Your task to perform on an android device: Open Chrome and go to the settings page Image 0: 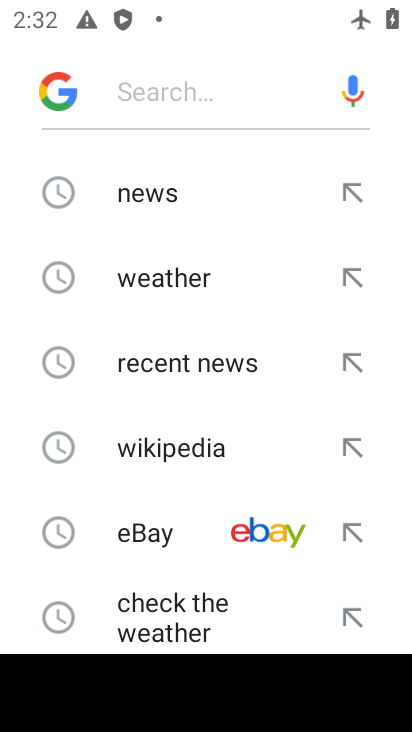
Step 0: press home button
Your task to perform on an android device: Open Chrome and go to the settings page Image 1: 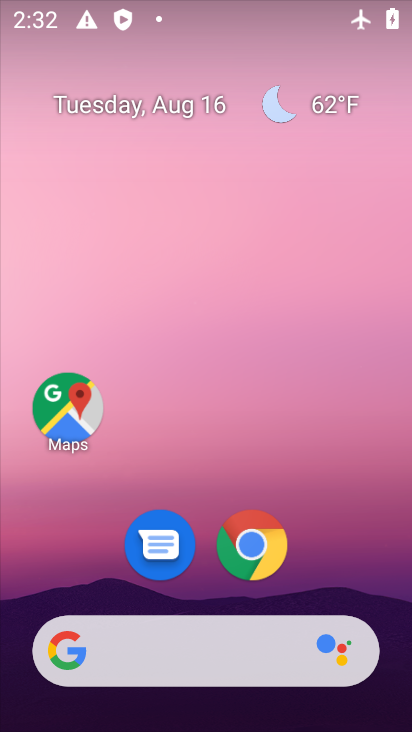
Step 1: click (246, 553)
Your task to perform on an android device: Open Chrome and go to the settings page Image 2: 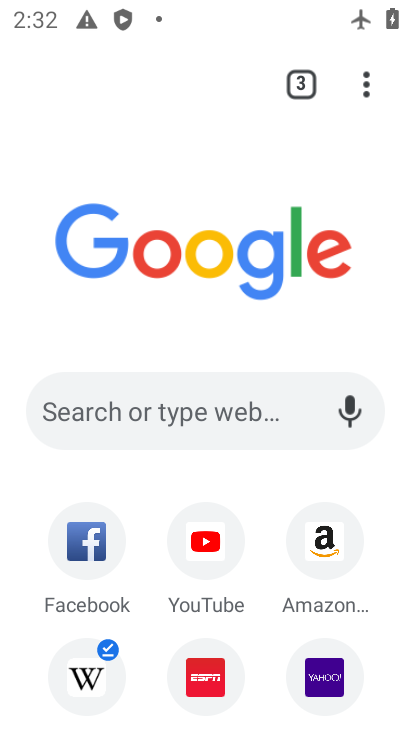
Step 2: click (368, 90)
Your task to perform on an android device: Open Chrome and go to the settings page Image 3: 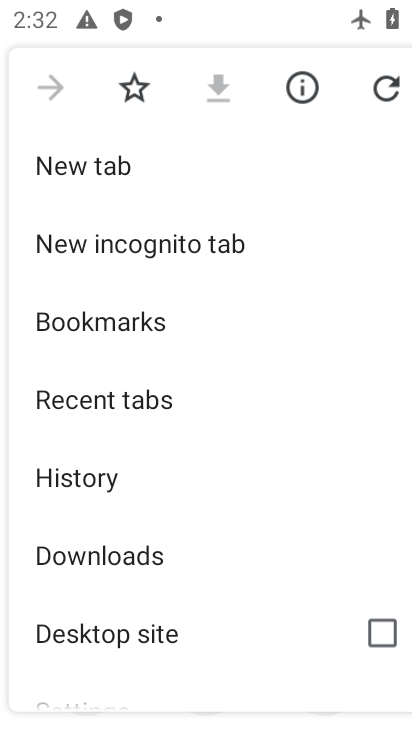
Step 3: drag from (163, 697) to (122, 227)
Your task to perform on an android device: Open Chrome and go to the settings page Image 4: 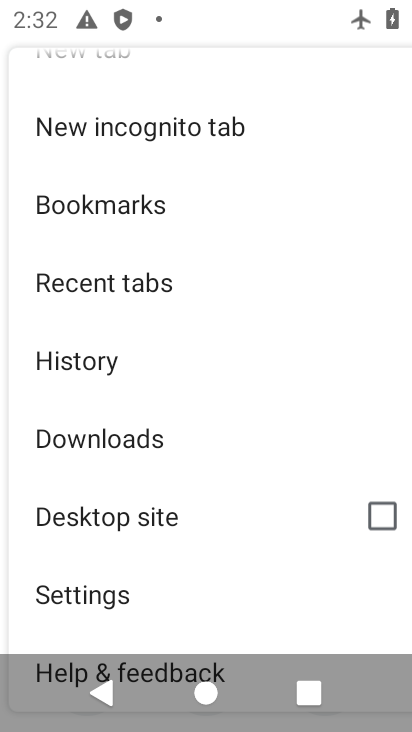
Step 4: click (107, 594)
Your task to perform on an android device: Open Chrome and go to the settings page Image 5: 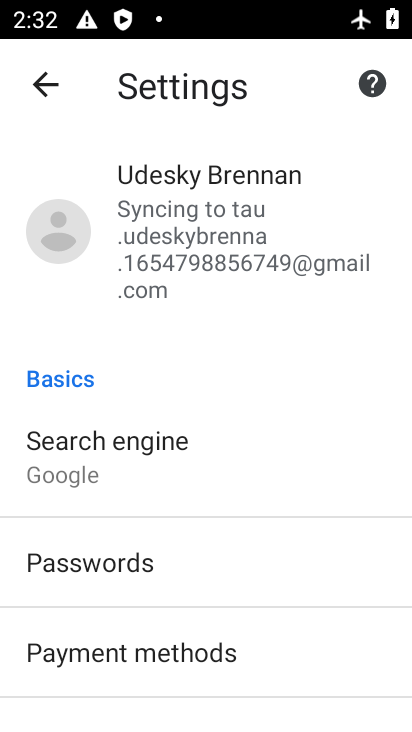
Step 5: task complete